Your task to perform on an android device: Open the phone app and click the voicemail tab. Image 0: 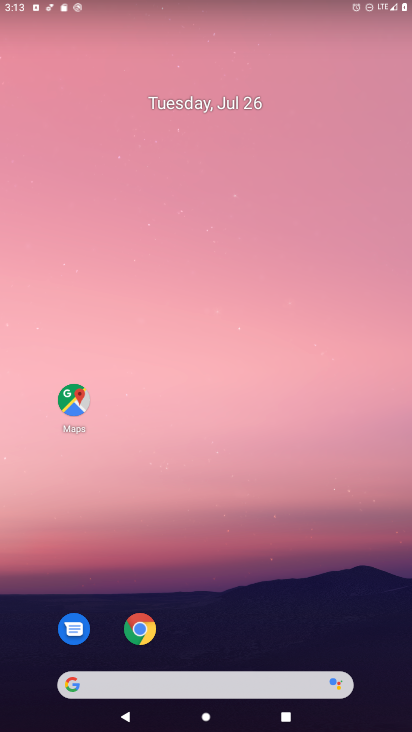
Step 0: drag from (386, 674) to (334, 146)
Your task to perform on an android device: Open the phone app and click the voicemail tab. Image 1: 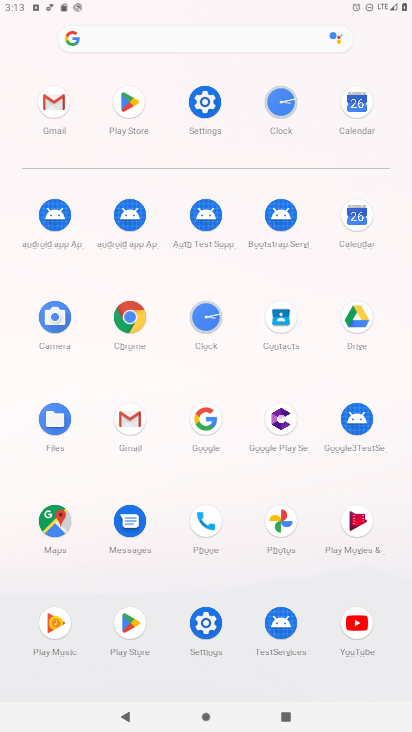
Step 1: click (205, 521)
Your task to perform on an android device: Open the phone app and click the voicemail tab. Image 2: 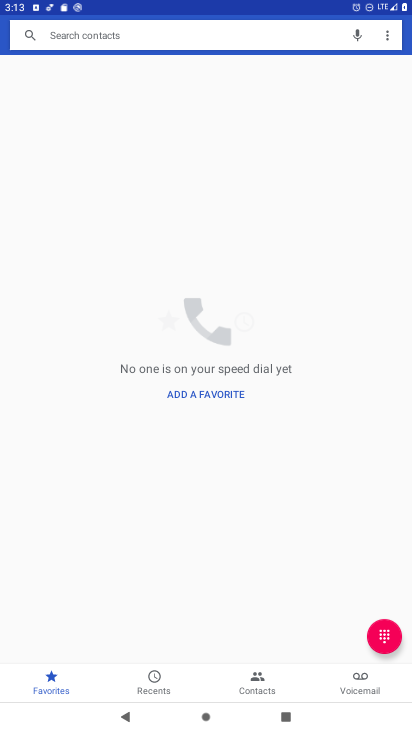
Step 2: click (358, 683)
Your task to perform on an android device: Open the phone app and click the voicemail tab. Image 3: 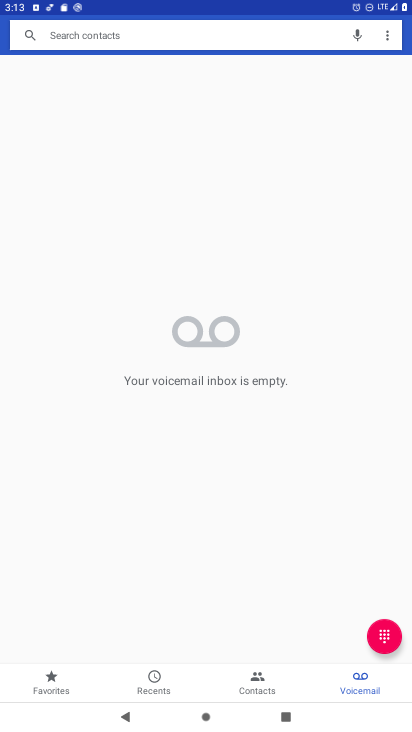
Step 3: task complete